Your task to perform on an android device: open chrome privacy settings Image 0: 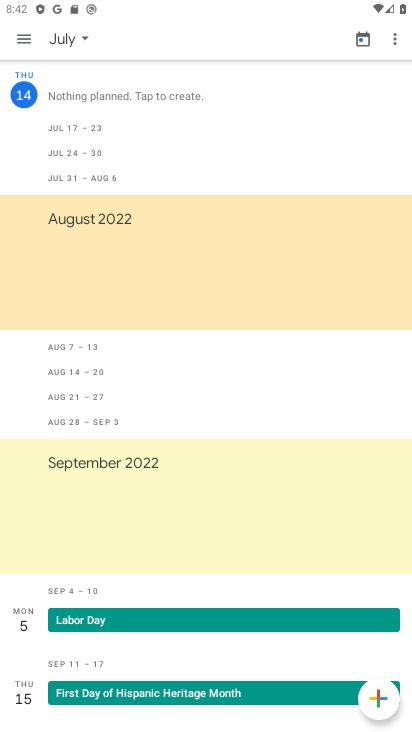
Step 0: drag from (209, 641) to (288, 203)
Your task to perform on an android device: open chrome privacy settings Image 1: 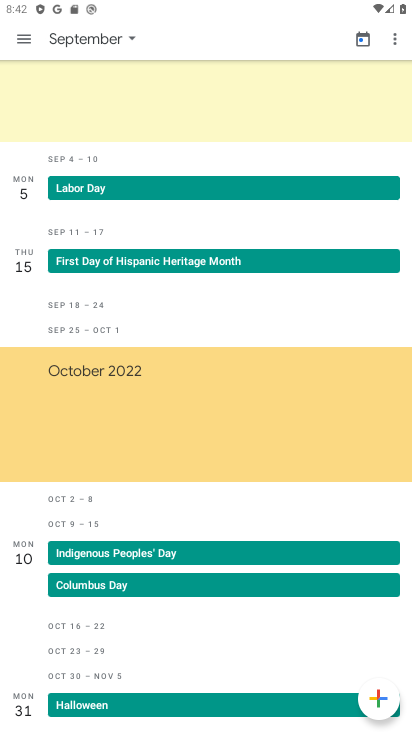
Step 1: press home button
Your task to perform on an android device: open chrome privacy settings Image 2: 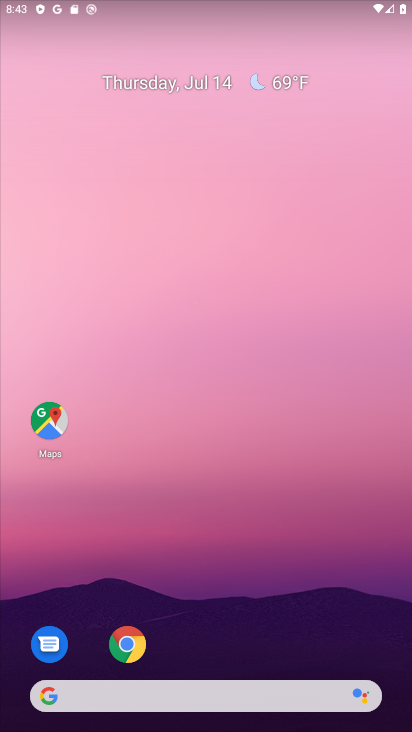
Step 2: click (123, 644)
Your task to perform on an android device: open chrome privacy settings Image 3: 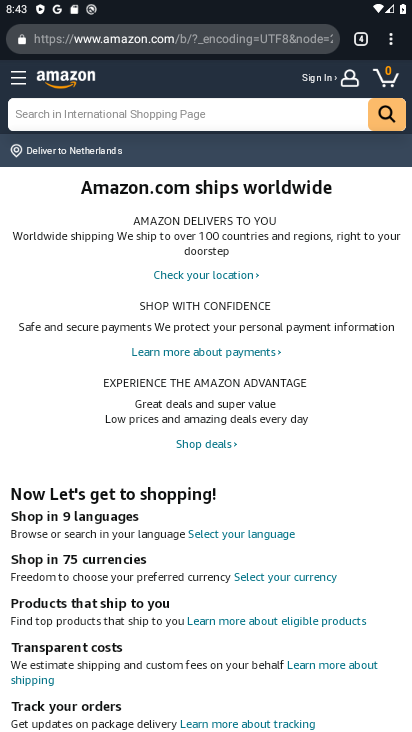
Step 3: click (401, 39)
Your task to perform on an android device: open chrome privacy settings Image 4: 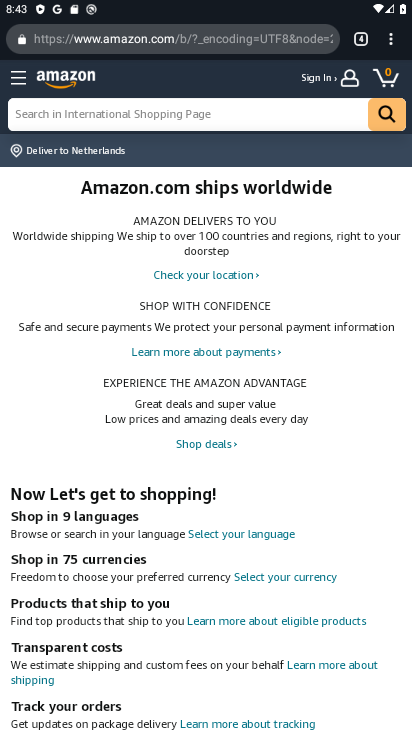
Step 4: click (394, 34)
Your task to perform on an android device: open chrome privacy settings Image 5: 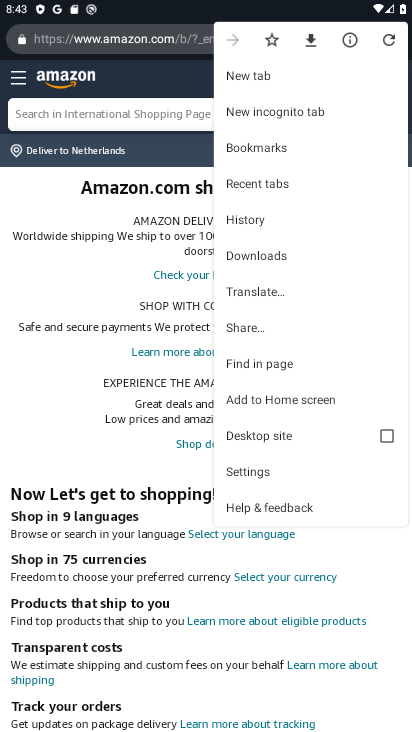
Step 5: click (397, 34)
Your task to perform on an android device: open chrome privacy settings Image 6: 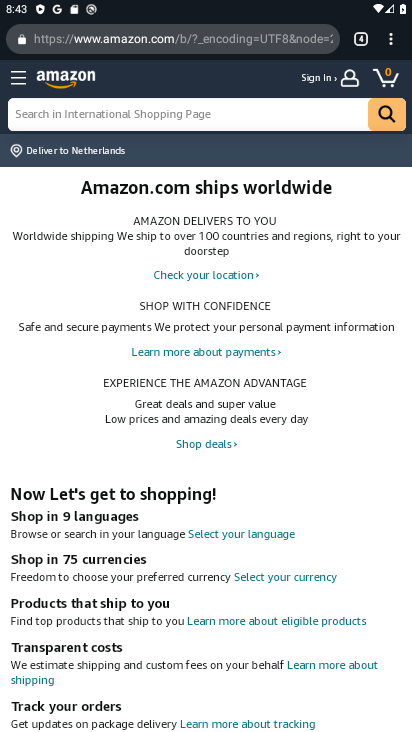
Step 6: click (397, 31)
Your task to perform on an android device: open chrome privacy settings Image 7: 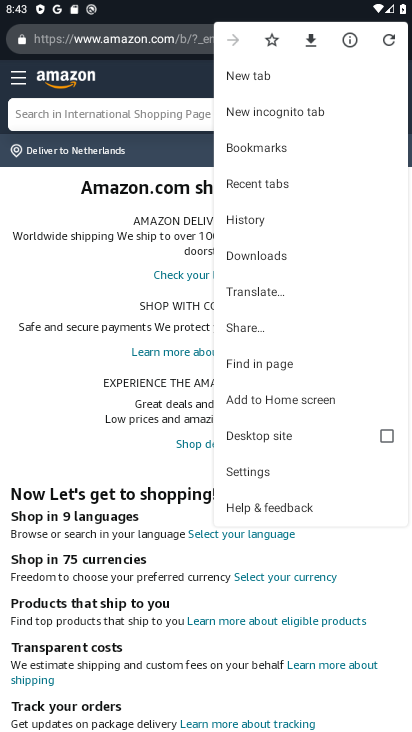
Step 7: click (295, 464)
Your task to perform on an android device: open chrome privacy settings Image 8: 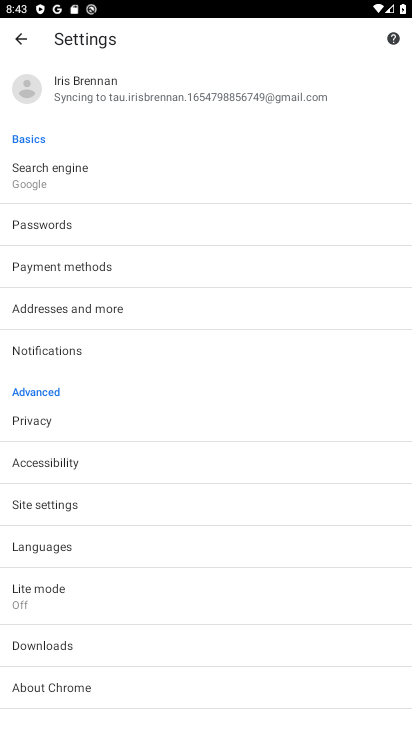
Step 8: click (82, 423)
Your task to perform on an android device: open chrome privacy settings Image 9: 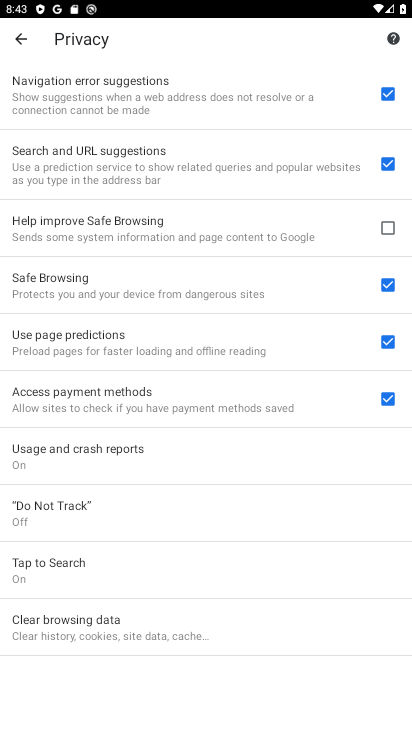
Step 9: task complete